Your task to perform on an android device: Go to Google Image 0: 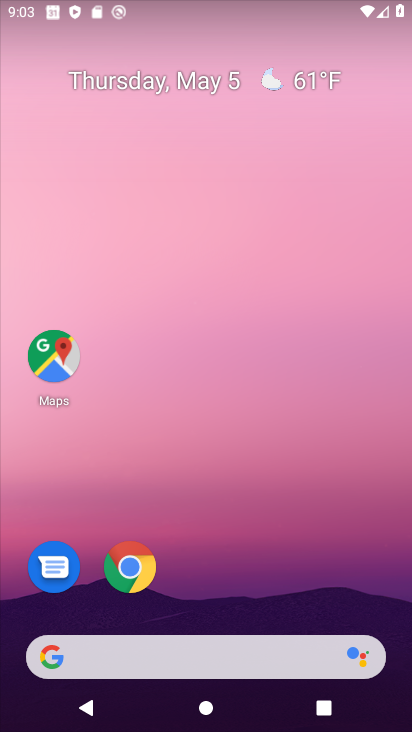
Step 0: drag from (226, 721) to (198, 262)
Your task to perform on an android device: Go to Google Image 1: 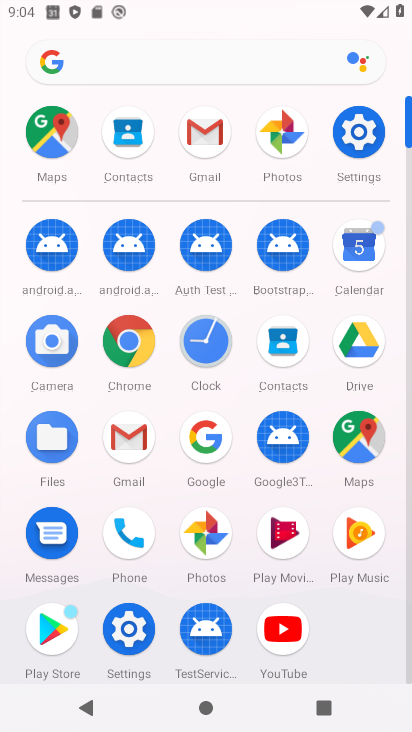
Step 1: click (212, 434)
Your task to perform on an android device: Go to Google Image 2: 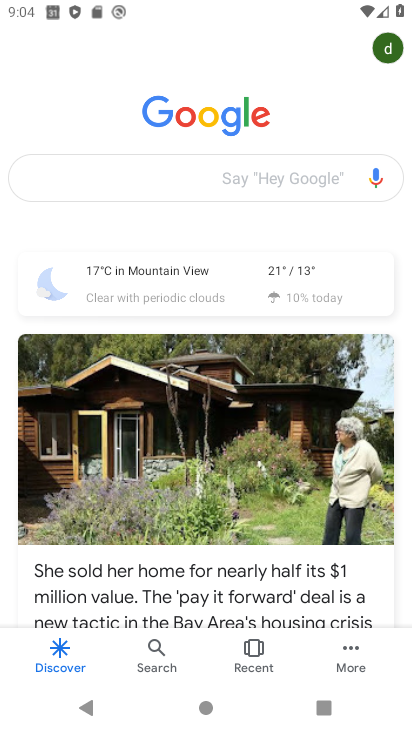
Step 2: task complete